Your task to perform on an android device: uninstall "Google Play Music" Image 0: 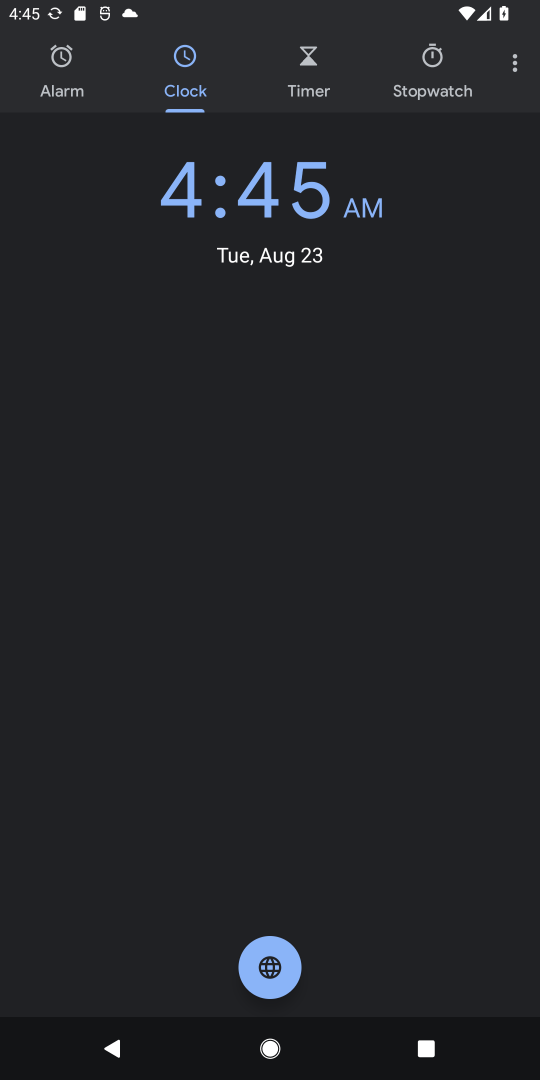
Step 0: press home button
Your task to perform on an android device: uninstall "Google Play Music" Image 1: 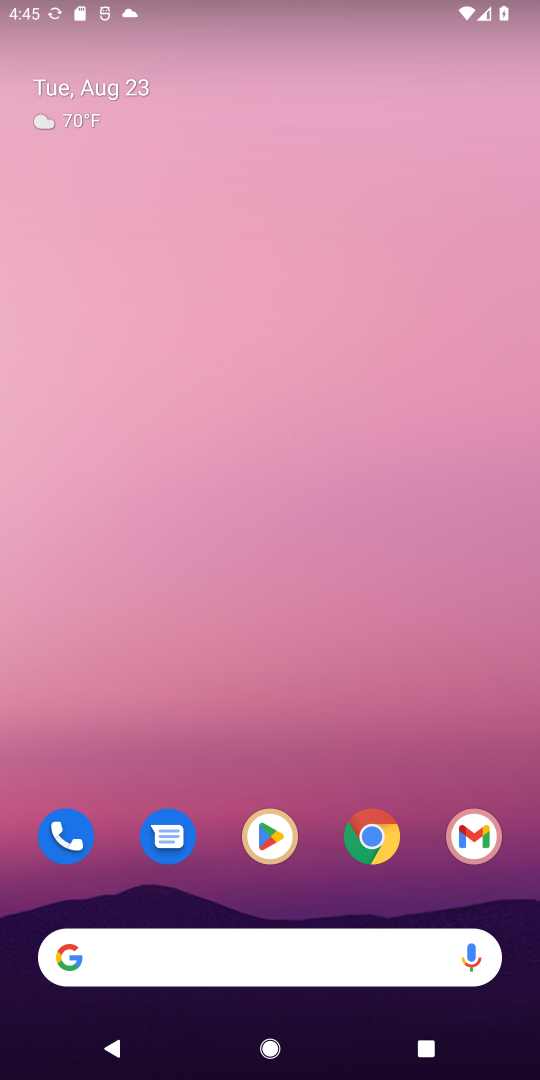
Step 1: click (276, 838)
Your task to perform on an android device: uninstall "Google Play Music" Image 2: 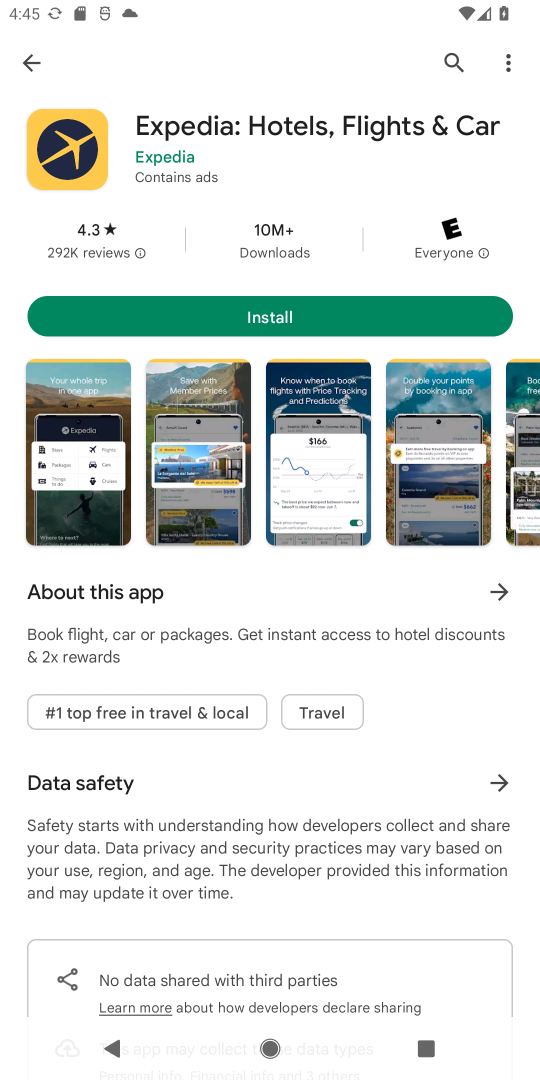
Step 2: click (453, 54)
Your task to perform on an android device: uninstall "Google Play Music" Image 3: 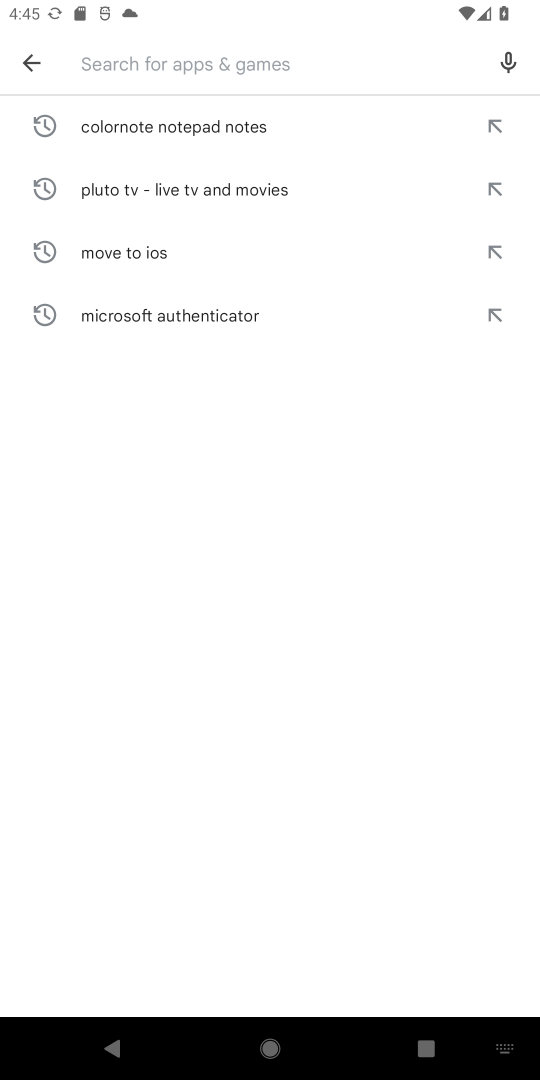
Step 3: type "Google Play Music"
Your task to perform on an android device: uninstall "Google Play Music" Image 4: 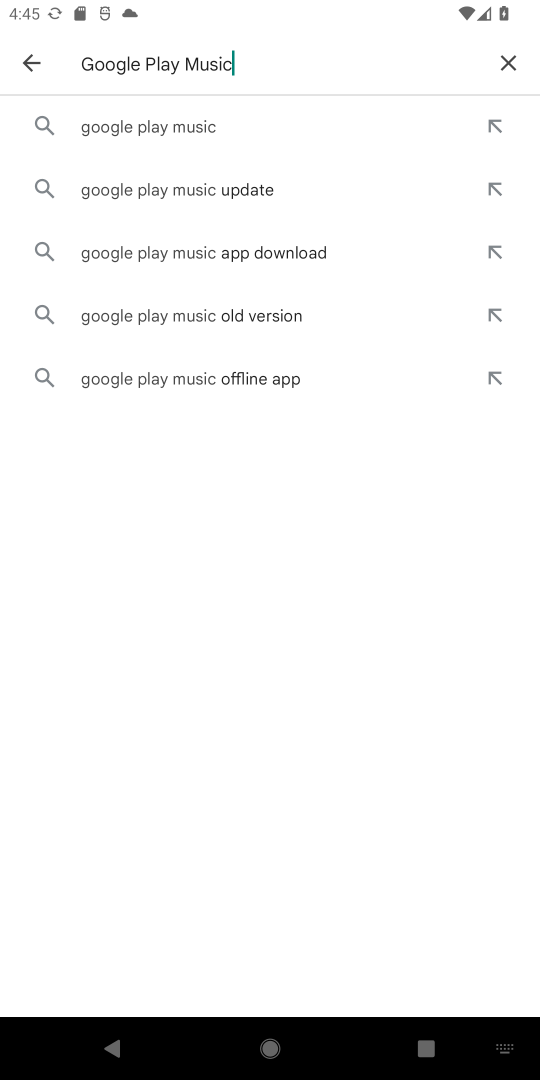
Step 4: click (175, 126)
Your task to perform on an android device: uninstall "Google Play Music" Image 5: 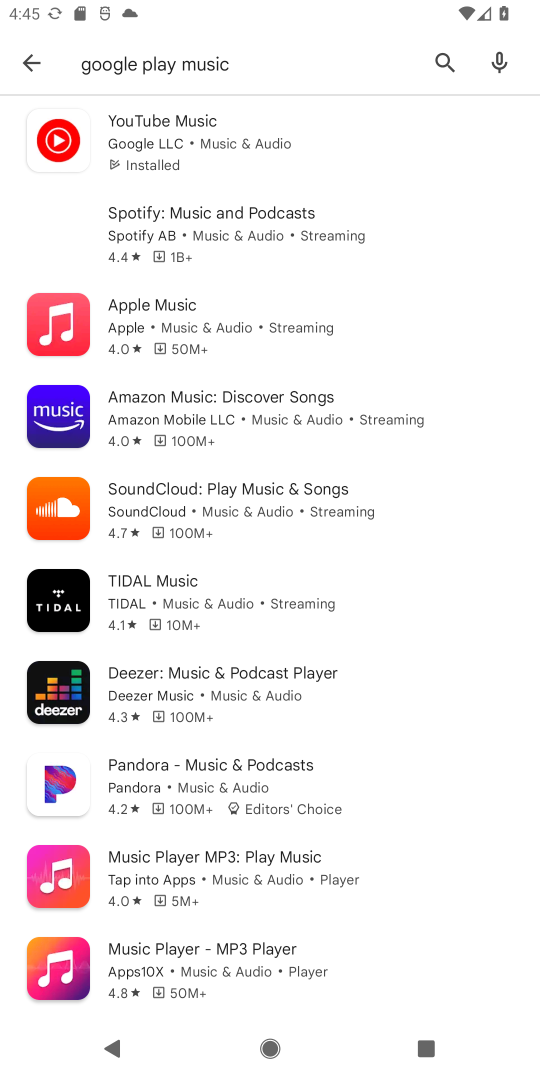
Step 5: drag from (366, 673) to (375, 508)
Your task to perform on an android device: uninstall "Google Play Music" Image 6: 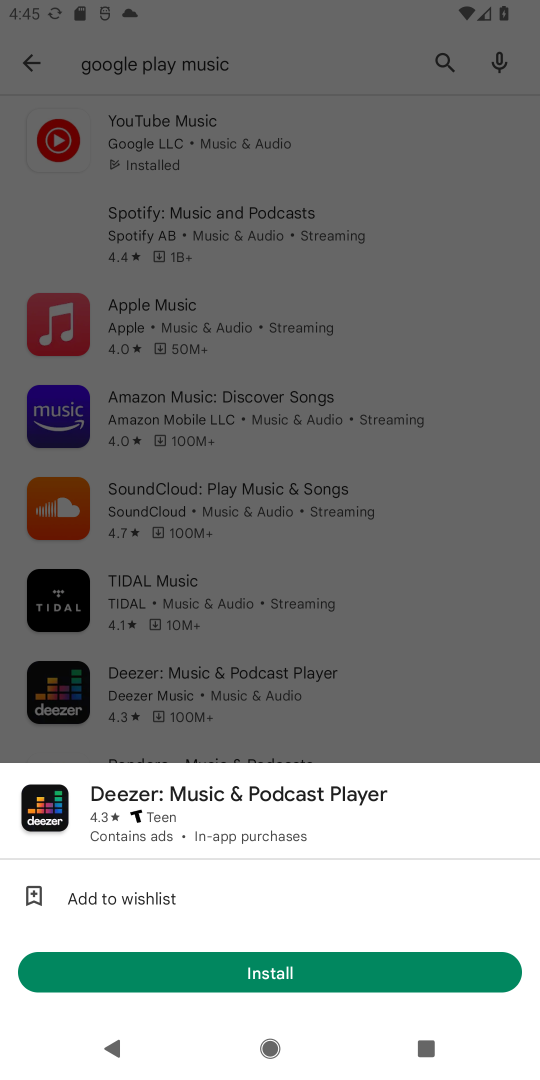
Step 6: click (376, 699)
Your task to perform on an android device: uninstall "Google Play Music" Image 7: 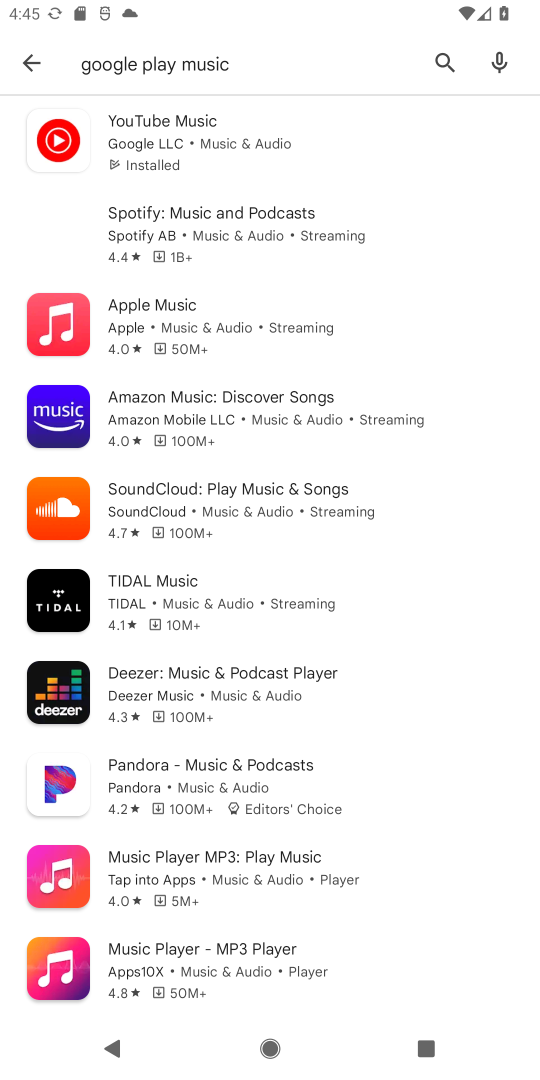
Step 7: drag from (376, 699) to (403, 444)
Your task to perform on an android device: uninstall "Google Play Music" Image 8: 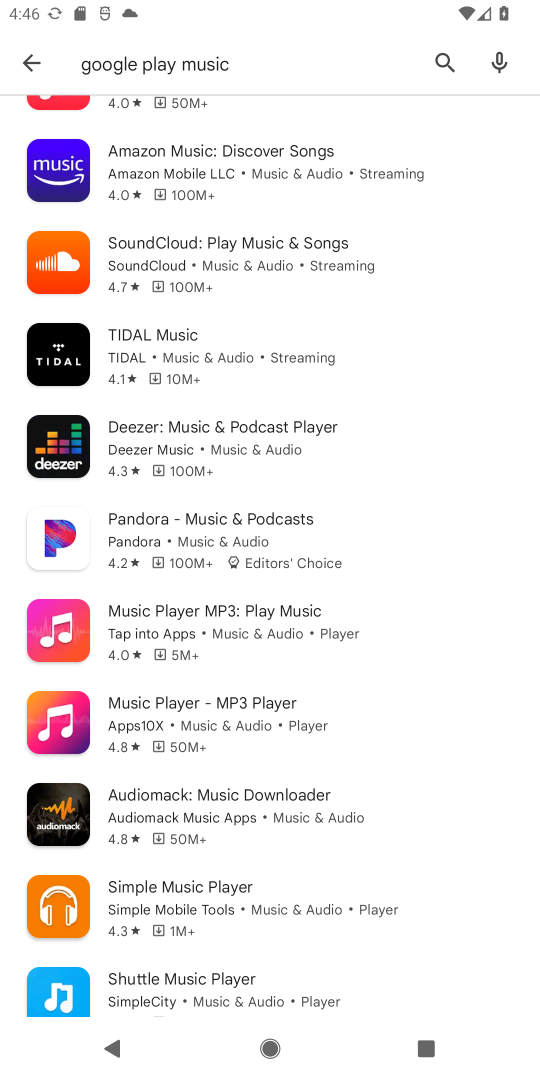
Step 8: drag from (426, 756) to (427, 623)
Your task to perform on an android device: uninstall "Google Play Music" Image 9: 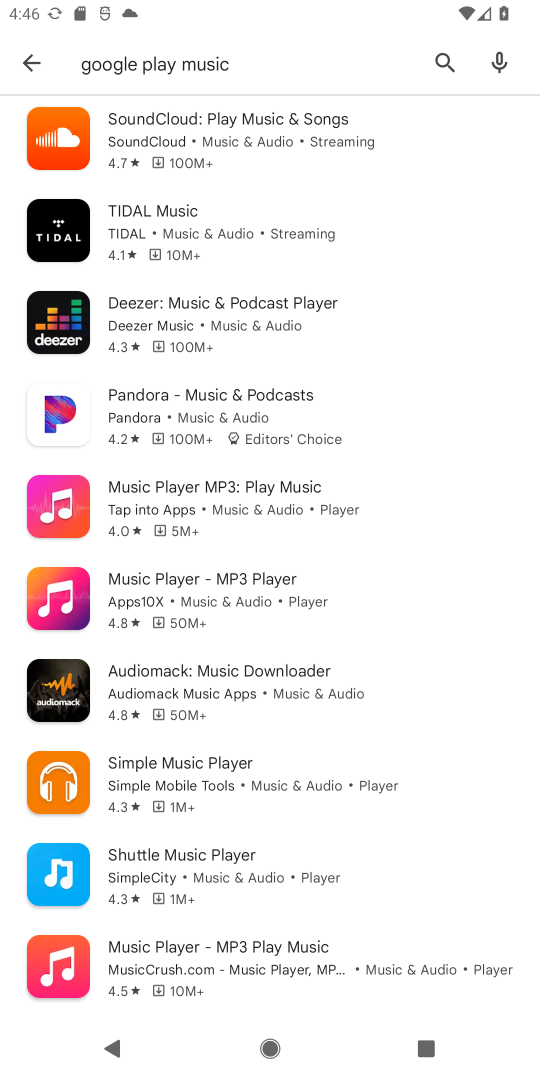
Step 9: drag from (438, 789) to (439, 682)
Your task to perform on an android device: uninstall "Google Play Music" Image 10: 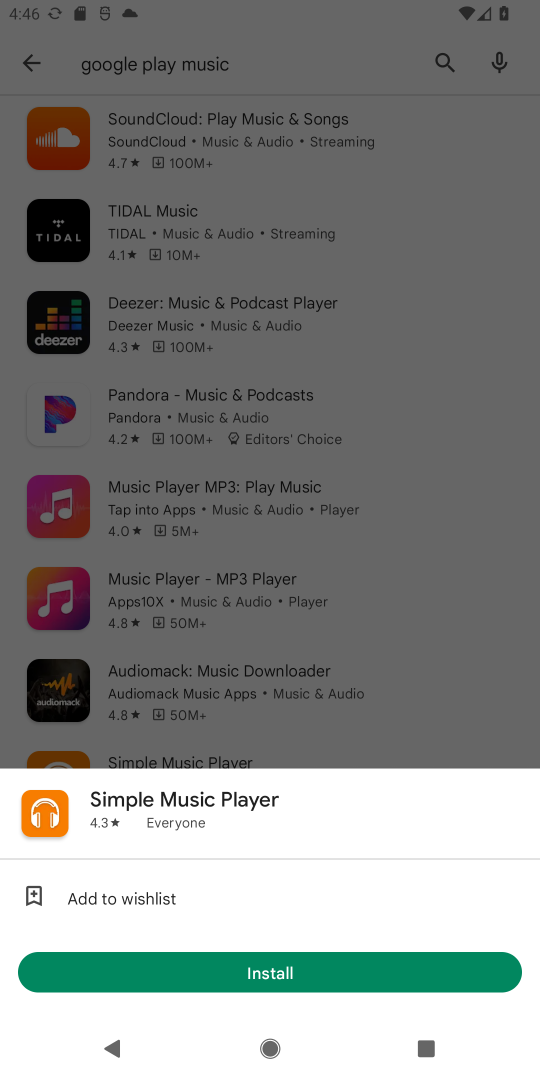
Step 10: click (445, 634)
Your task to perform on an android device: uninstall "Google Play Music" Image 11: 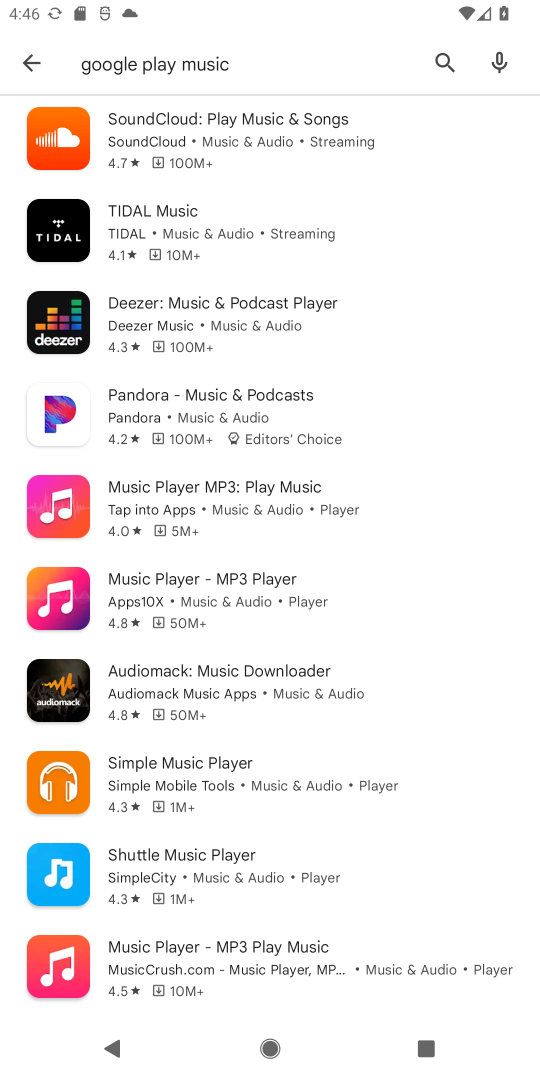
Step 11: task complete